Your task to perform on an android device: Open maps Image 0: 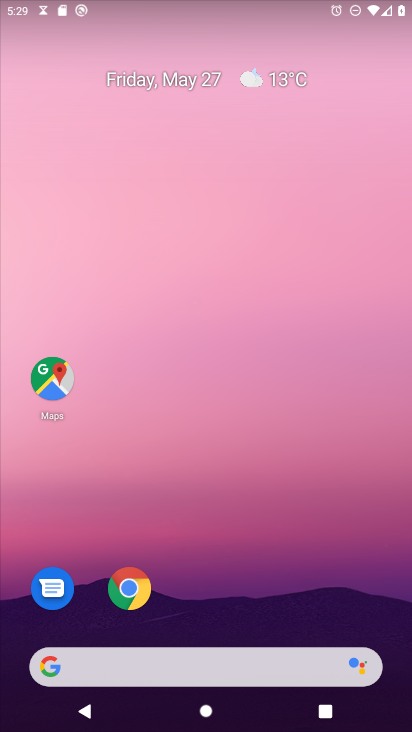
Step 0: click (59, 379)
Your task to perform on an android device: Open maps Image 1: 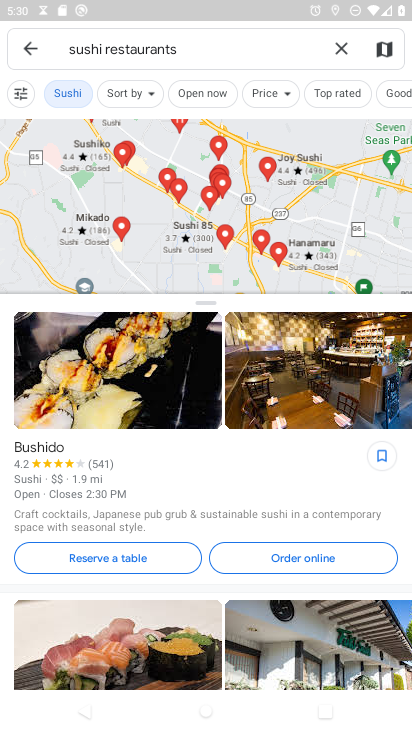
Step 1: task complete